Your task to perform on an android device: Open maps Image 0: 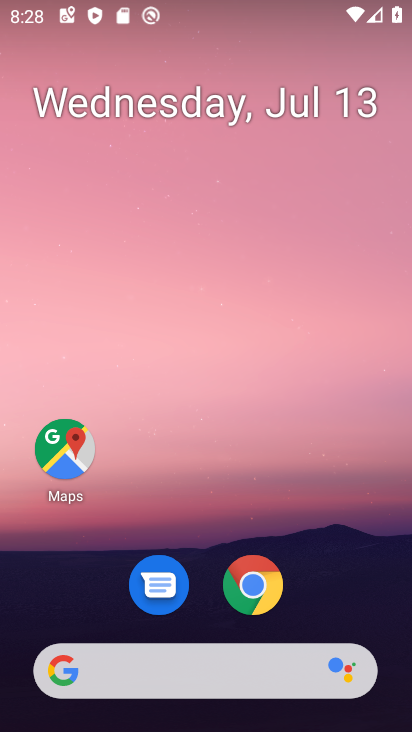
Step 0: click (67, 449)
Your task to perform on an android device: Open maps Image 1: 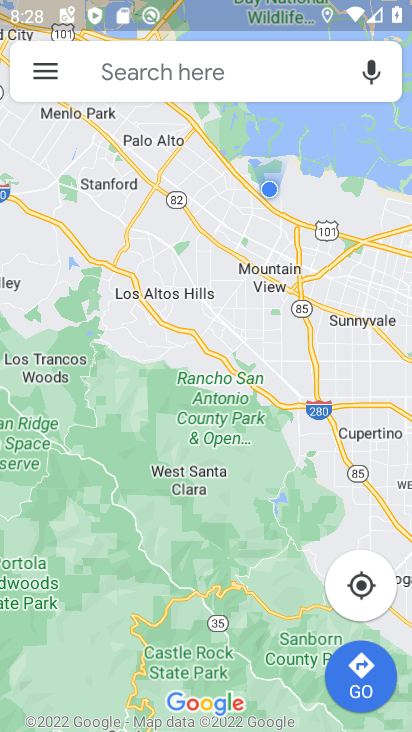
Step 1: task complete